Your task to perform on an android device: Go to Yahoo.com Image 0: 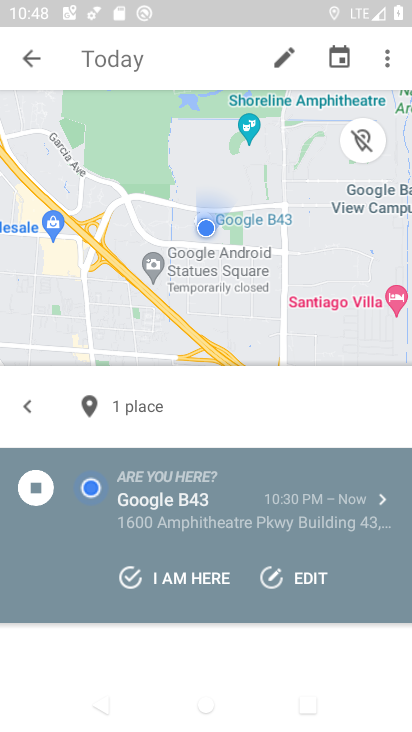
Step 0: press home button
Your task to perform on an android device: Go to Yahoo.com Image 1: 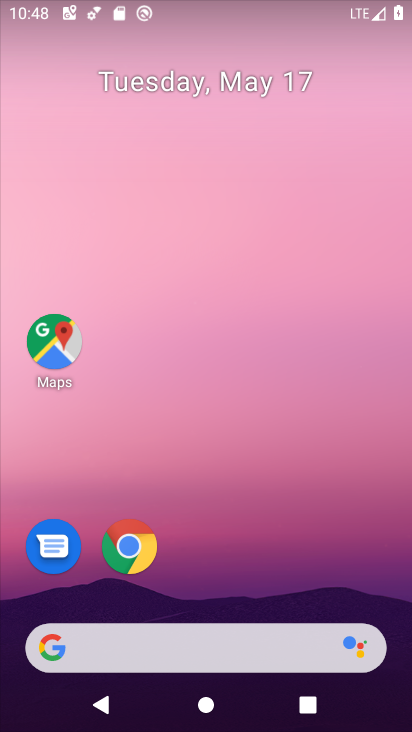
Step 1: click (138, 557)
Your task to perform on an android device: Go to Yahoo.com Image 2: 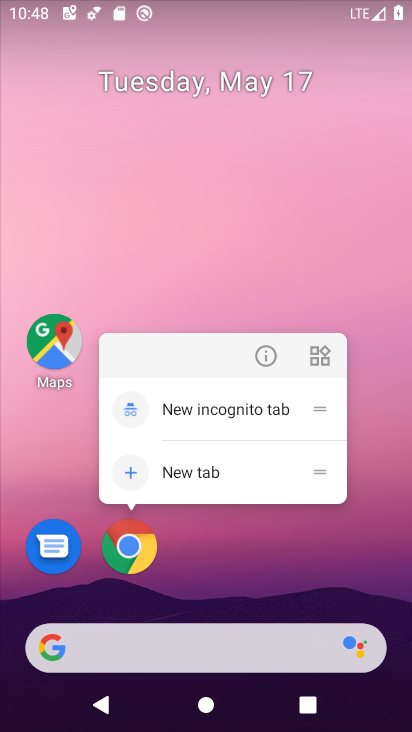
Step 2: click (138, 557)
Your task to perform on an android device: Go to Yahoo.com Image 3: 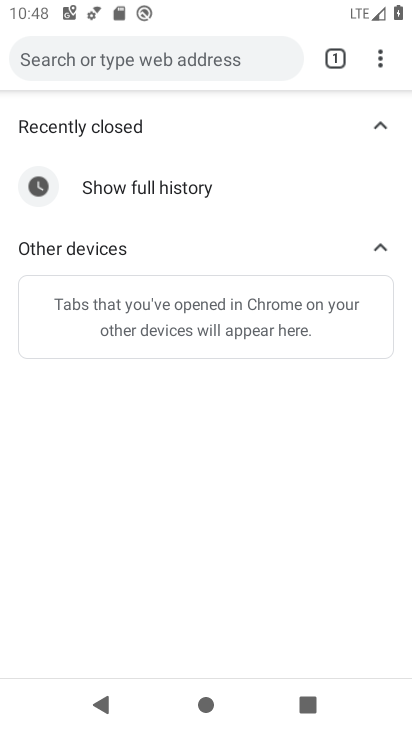
Step 3: click (194, 61)
Your task to perform on an android device: Go to Yahoo.com Image 4: 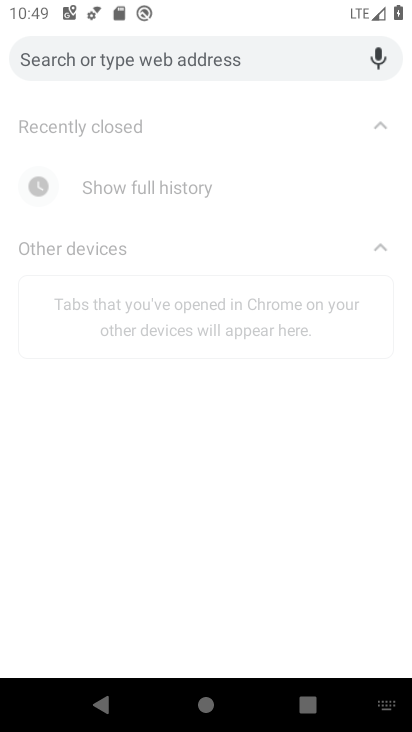
Step 4: type "Yahoo.com"
Your task to perform on an android device: Go to Yahoo.com Image 5: 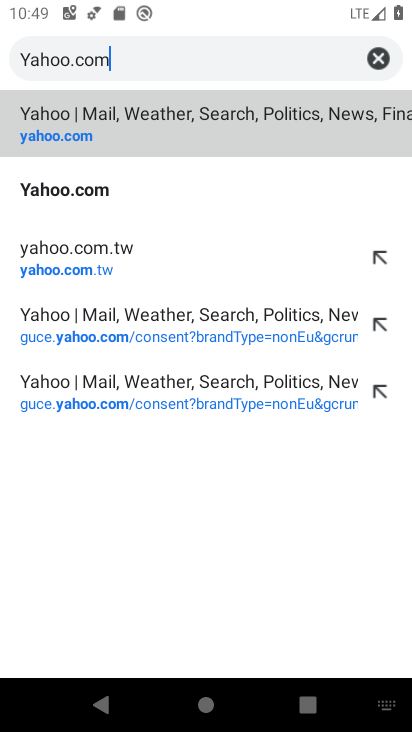
Step 5: click (126, 111)
Your task to perform on an android device: Go to Yahoo.com Image 6: 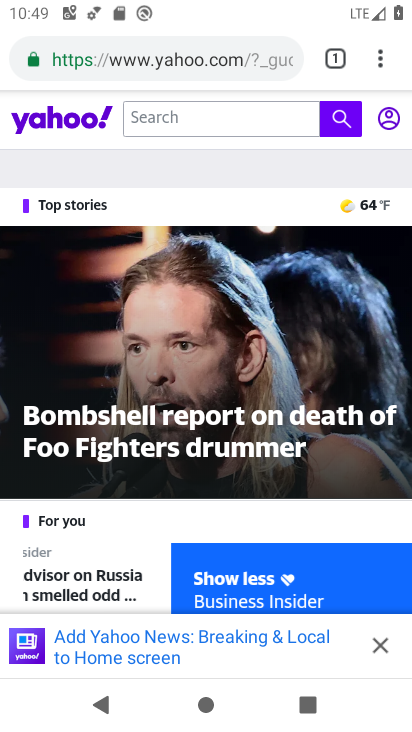
Step 6: task complete